Your task to perform on an android device: check storage Image 0: 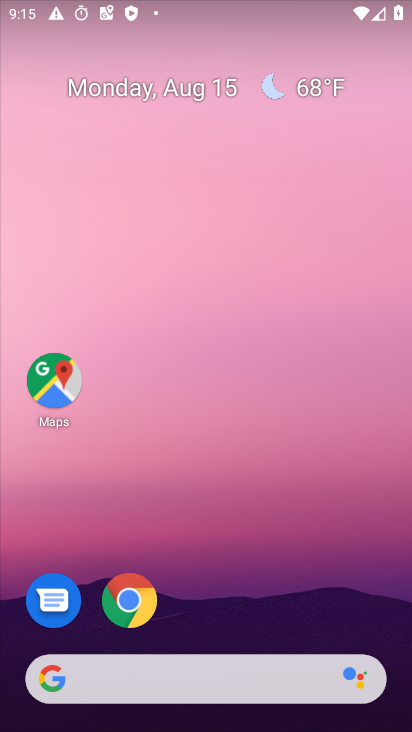
Step 0: drag from (224, 648) to (223, 99)
Your task to perform on an android device: check storage Image 1: 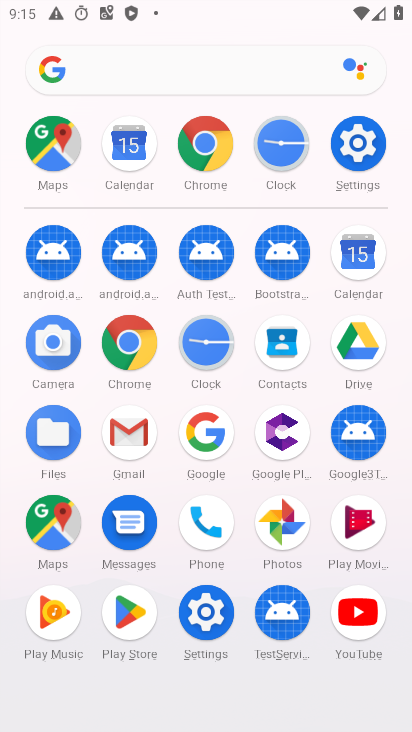
Step 1: click (354, 151)
Your task to perform on an android device: check storage Image 2: 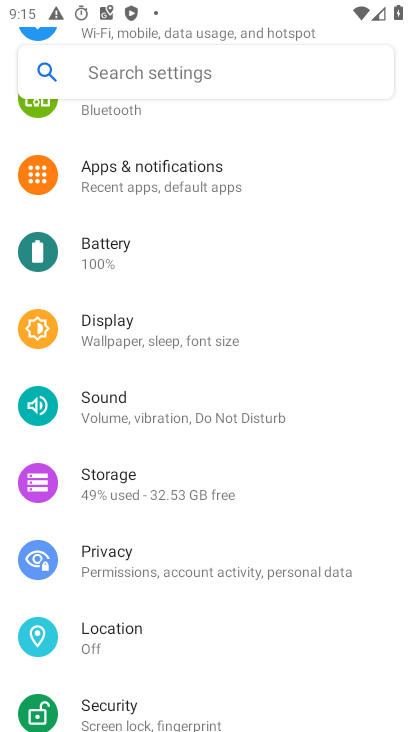
Step 2: click (111, 487)
Your task to perform on an android device: check storage Image 3: 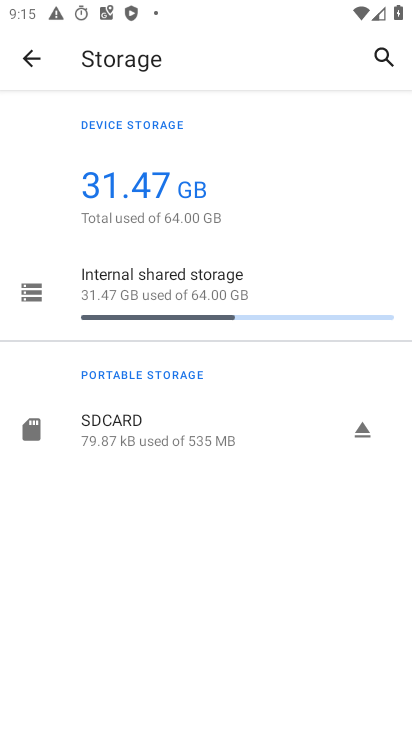
Step 3: task complete